Your task to perform on an android device: delete location history Image 0: 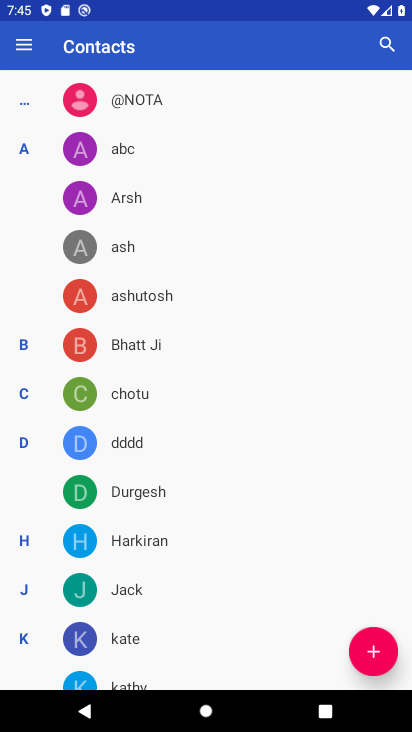
Step 0: press home button
Your task to perform on an android device: delete location history Image 1: 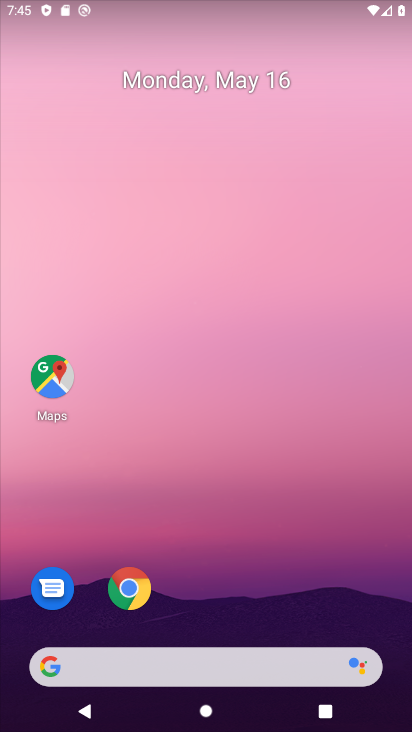
Step 1: drag from (242, 546) to (156, 3)
Your task to perform on an android device: delete location history Image 2: 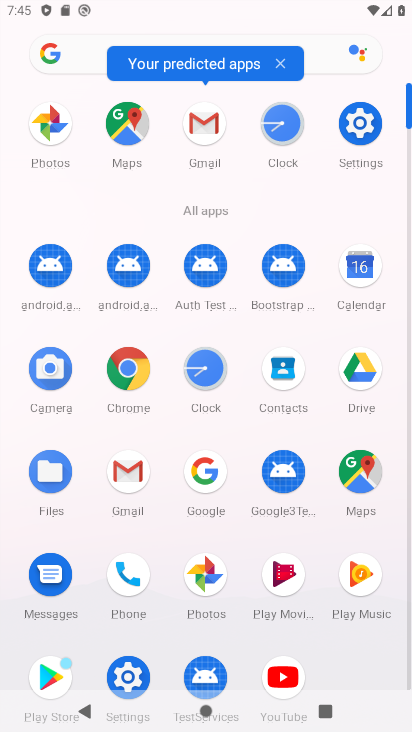
Step 2: click (371, 459)
Your task to perform on an android device: delete location history Image 3: 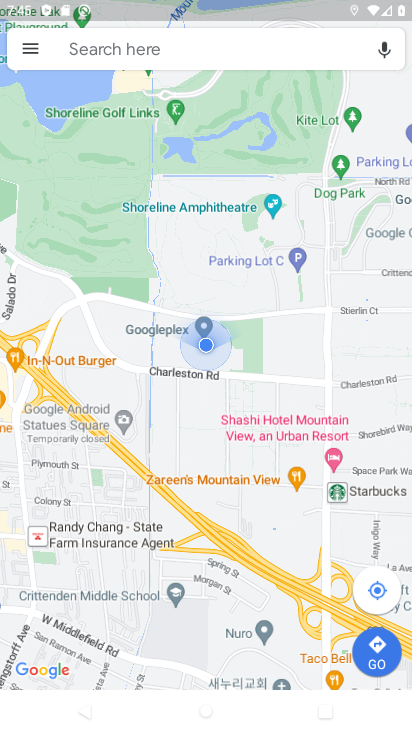
Step 3: click (33, 44)
Your task to perform on an android device: delete location history Image 4: 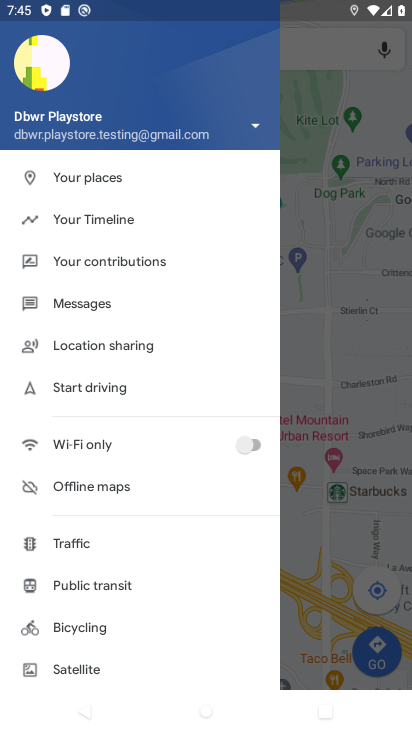
Step 4: drag from (147, 613) to (49, 361)
Your task to perform on an android device: delete location history Image 5: 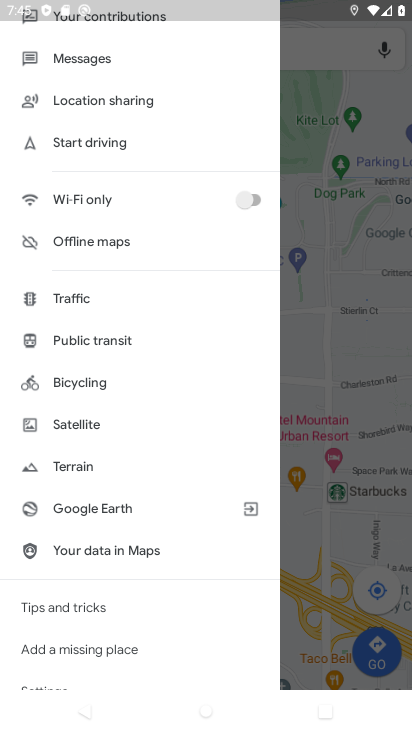
Step 5: drag from (146, 80) to (164, 591)
Your task to perform on an android device: delete location history Image 6: 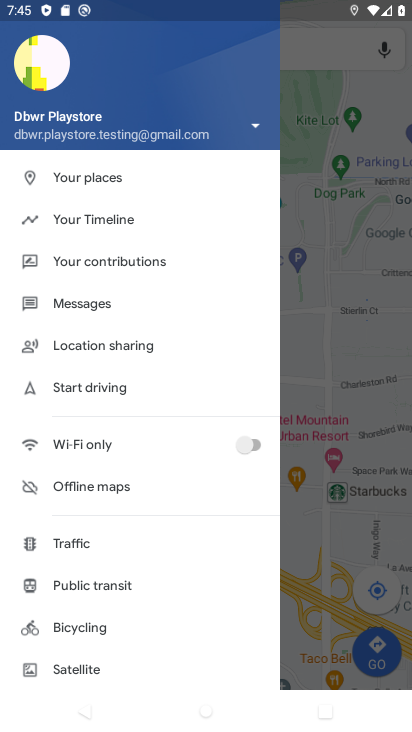
Step 6: click (100, 221)
Your task to perform on an android device: delete location history Image 7: 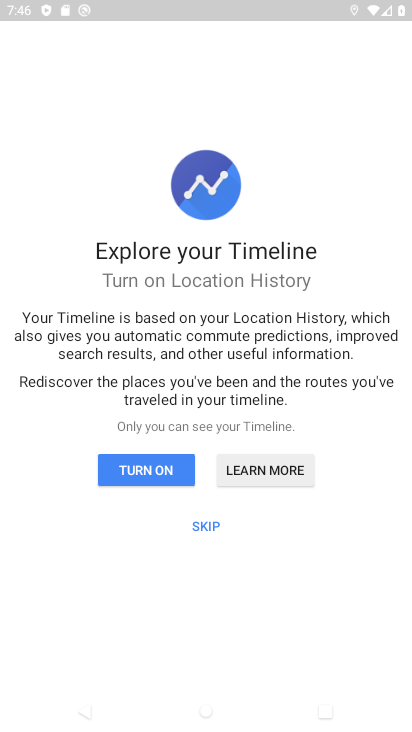
Step 7: click (215, 526)
Your task to perform on an android device: delete location history Image 8: 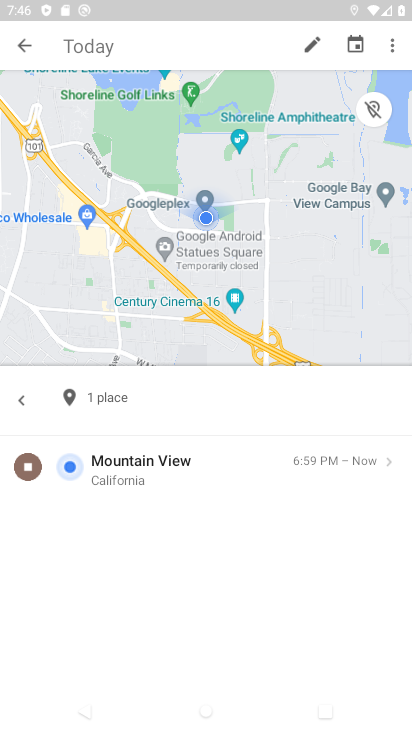
Step 8: click (379, 48)
Your task to perform on an android device: delete location history Image 9: 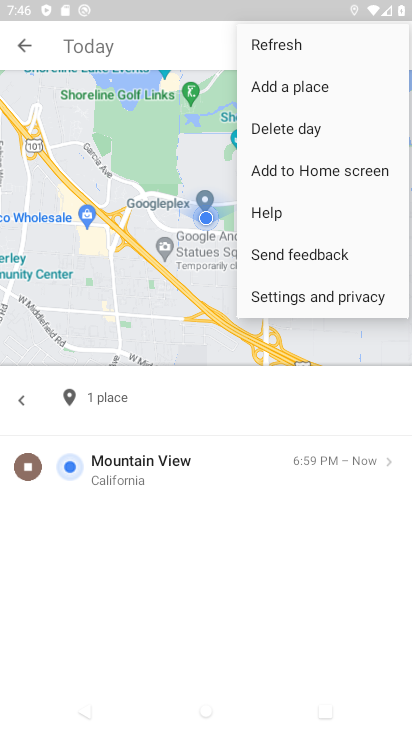
Step 9: click (305, 125)
Your task to perform on an android device: delete location history Image 10: 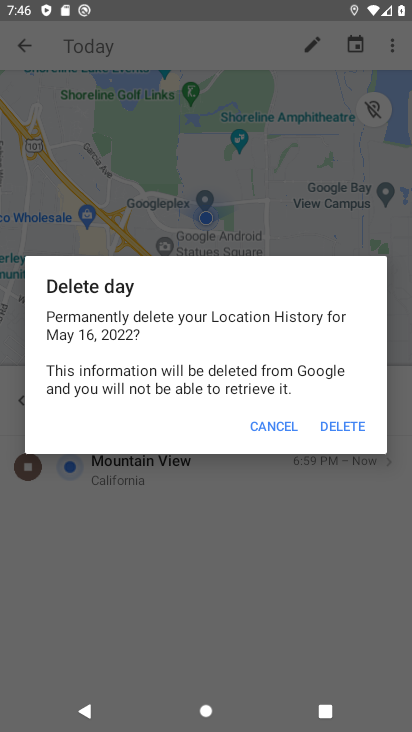
Step 10: click (342, 441)
Your task to perform on an android device: delete location history Image 11: 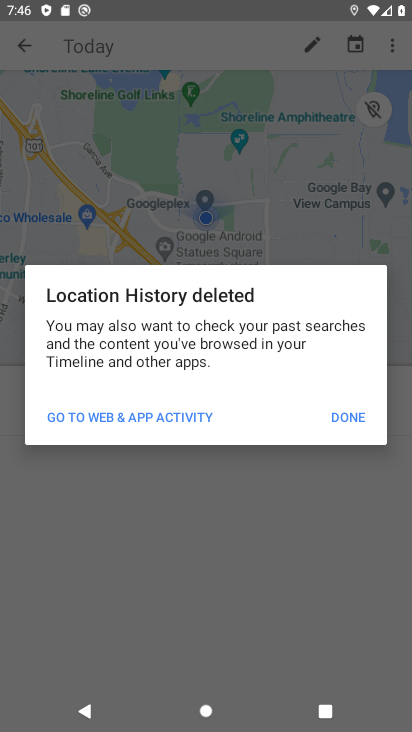
Step 11: click (354, 419)
Your task to perform on an android device: delete location history Image 12: 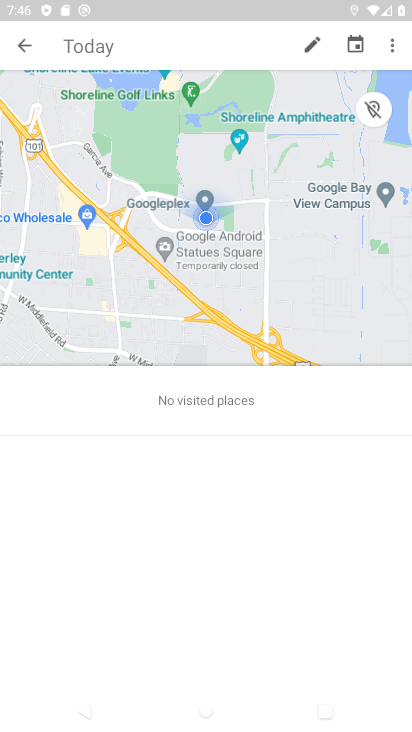
Step 12: task complete